Your task to perform on an android device: Open display settings Image 0: 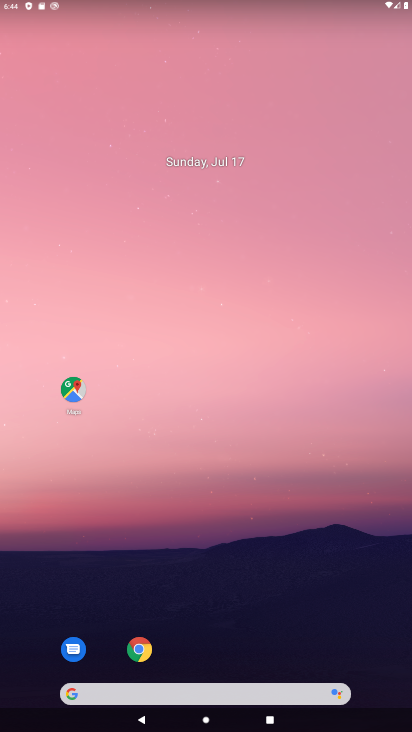
Step 0: press home button
Your task to perform on an android device: Open display settings Image 1: 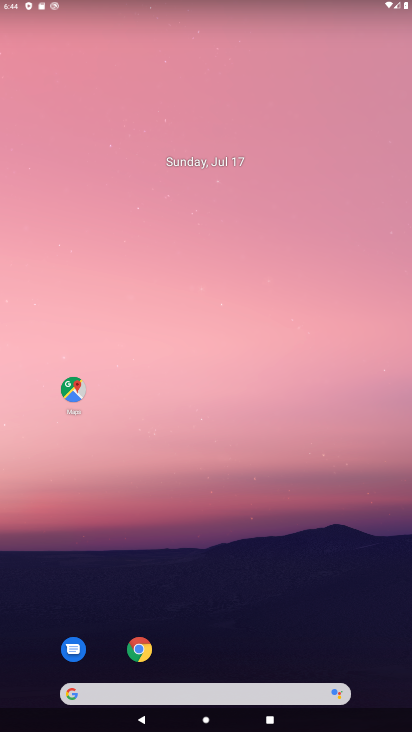
Step 1: drag from (229, 598) to (197, 158)
Your task to perform on an android device: Open display settings Image 2: 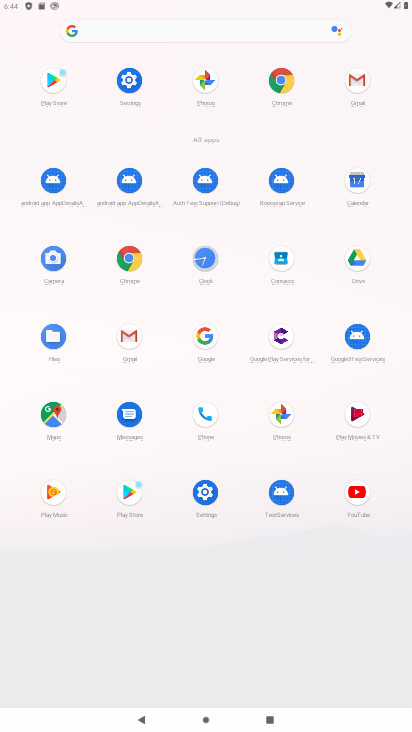
Step 2: click (124, 82)
Your task to perform on an android device: Open display settings Image 3: 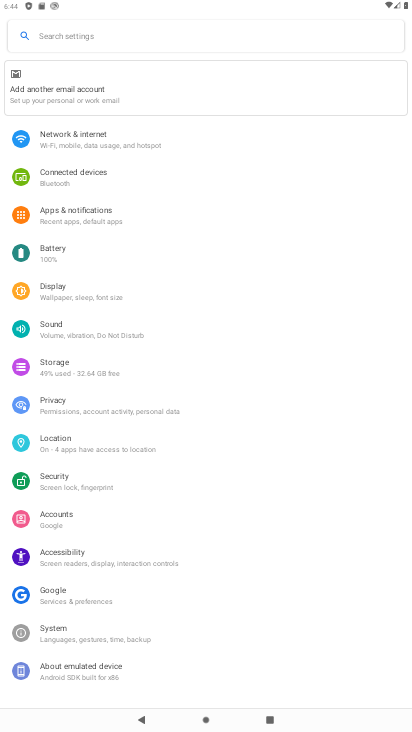
Step 3: click (43, 282)
Your task to perform on an android device: Open display settings Image 4: 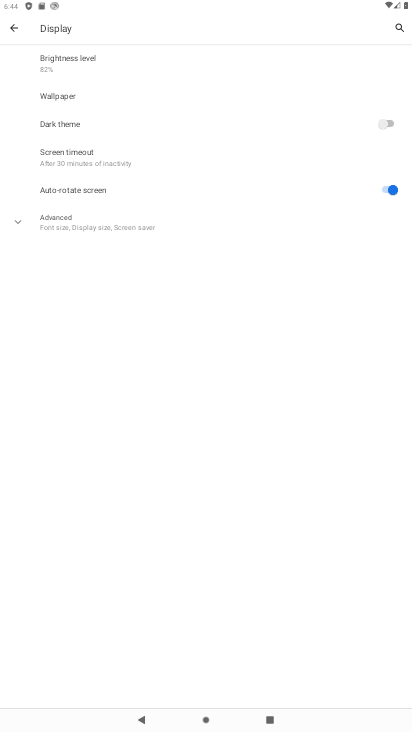
Step 4: task complete